Your task to perform on an android device: Check the news Image 0: 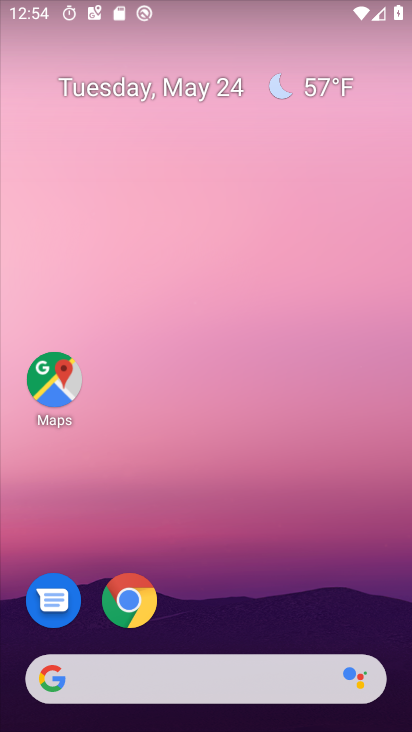
Step 0: click (204, 689)
Your task to perform on an android device: Check the news Image 1: 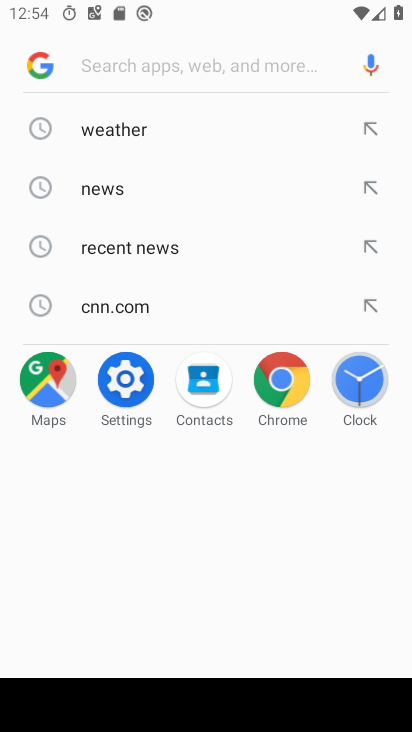
Step 1: click (103, 189)
Your task to perform on an android device: Check the news Image 2: 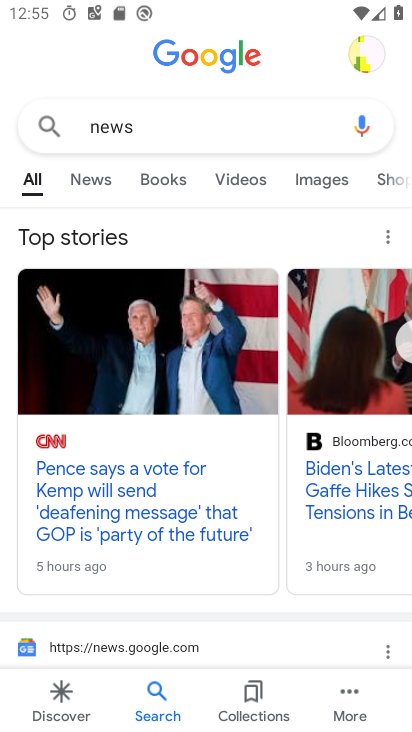
Step 2: task complete